Your task to perform on an android device: Check the weather Image 0: 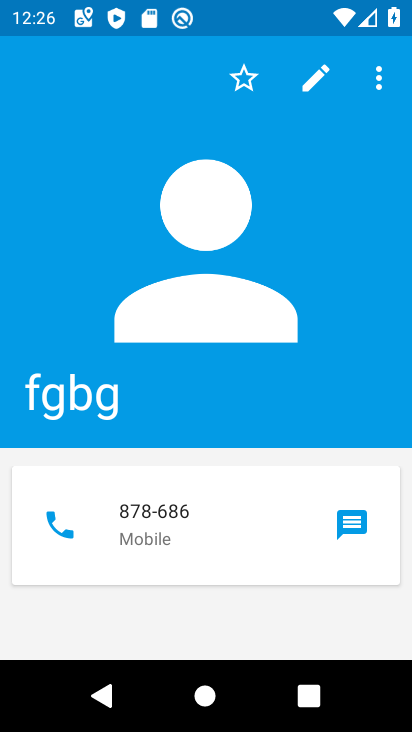
Step 0: press back button
Your task to perform on an android device: Check the weather Image 1: 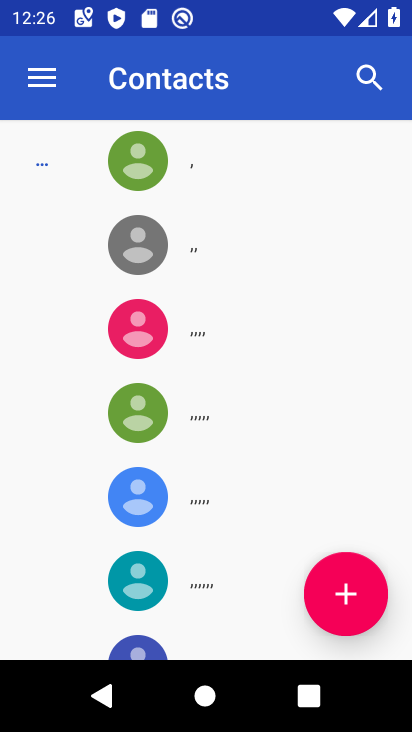
Step 1: press back button
Your task to perform on an android device: Check the weather Image 2: 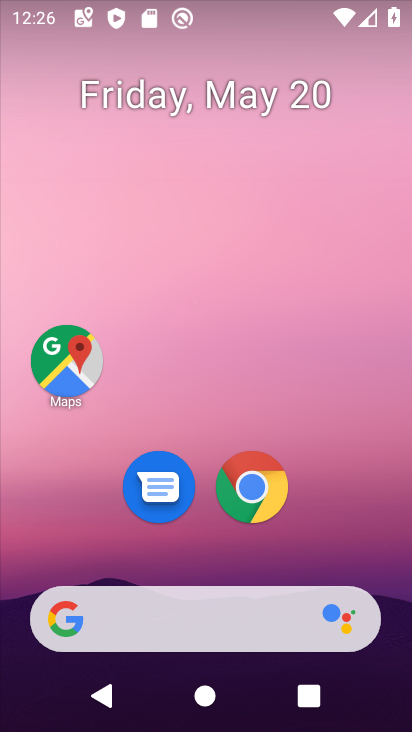
Step 2: click (188, 619)
Your task to perform on an android device: Check the weather Image 3: 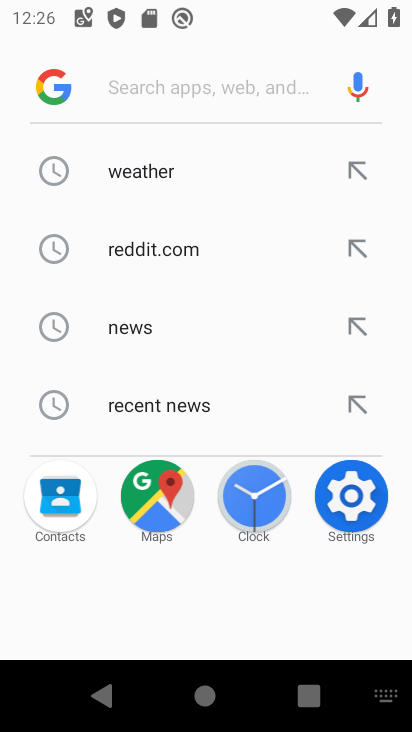
Step 3: click (114, 171)
Your task to perform on an android device: Check the weather Image 4: 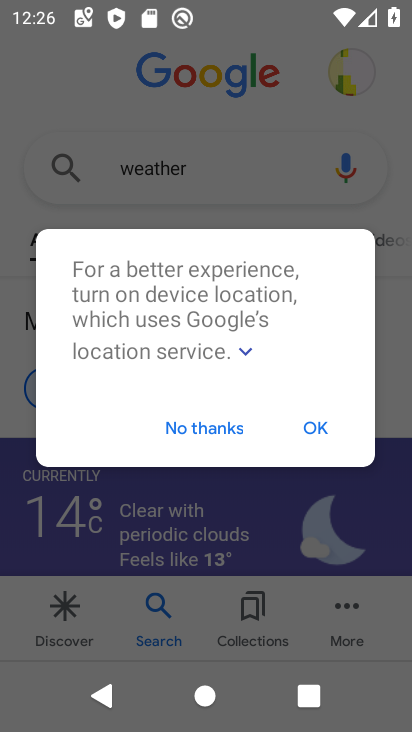
Step 4: click (305, 427)
Your task to perform on an android device: Check the weather Image 5: 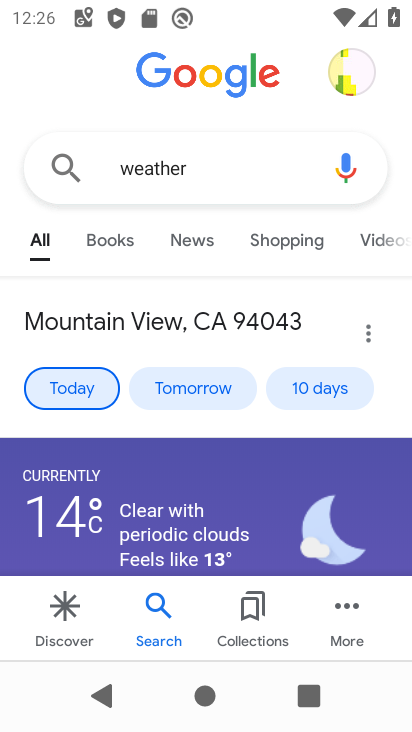
Step 5: task complete